Your task to perform on an android device: turn on the 12-hour format for clock Image 0: 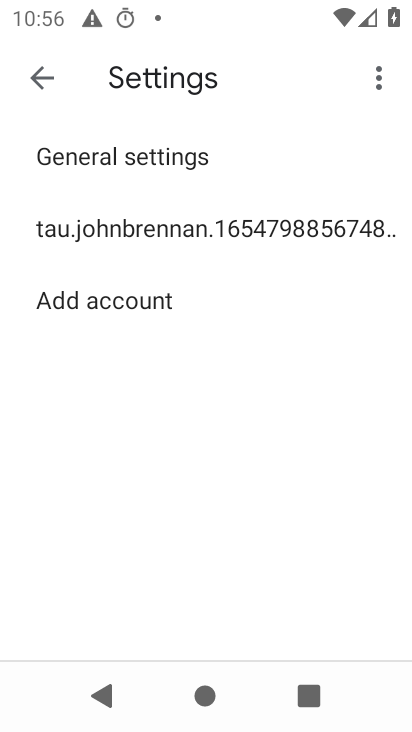
Step 0: press back button
Your task to perform on an android device: turn on the 12-hour format for clock Image 1: 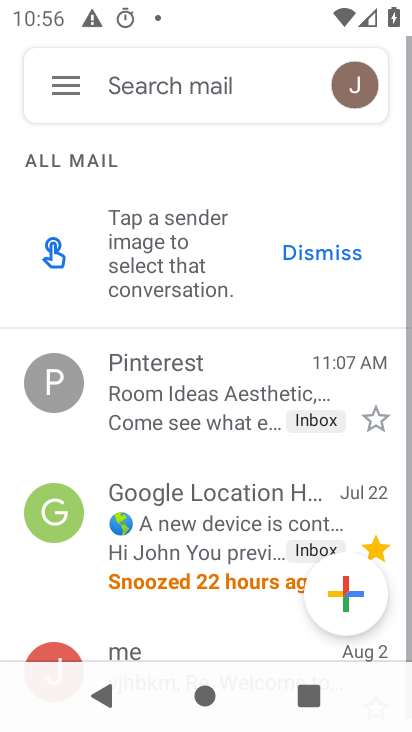
Step 1: press back button
Your task to perform on an android device: turn on the 12-hour format for clock Image 2: 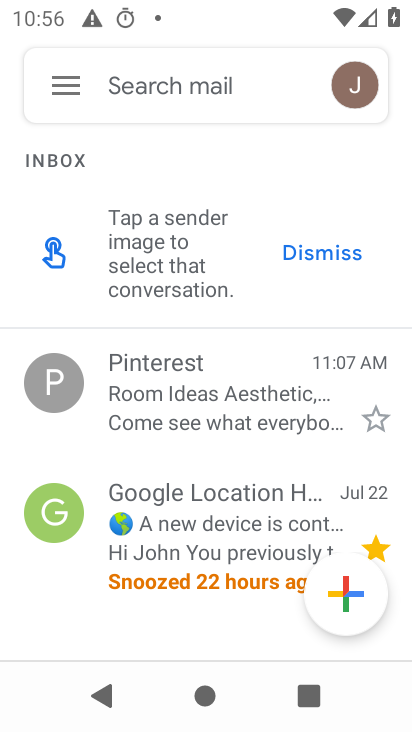
Step 2: press back button
Your task to perform on an android device: turn on the 12-hour format for clock Image 3: 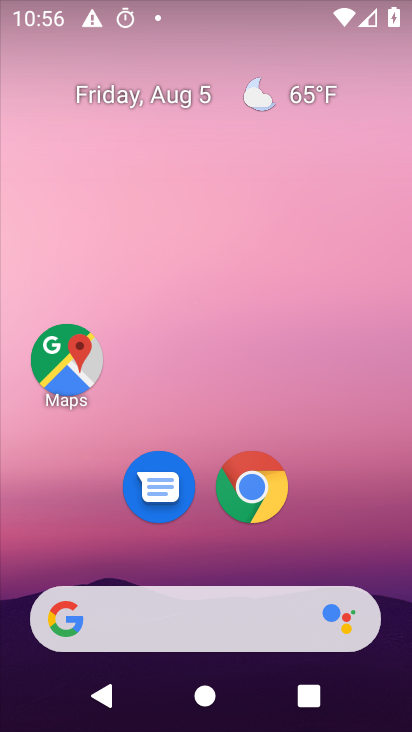
Step 3: drag from (192, 552) to (268, 14)
Your task to perform on an android device: turn on the 12-hour format for clock Image 4: 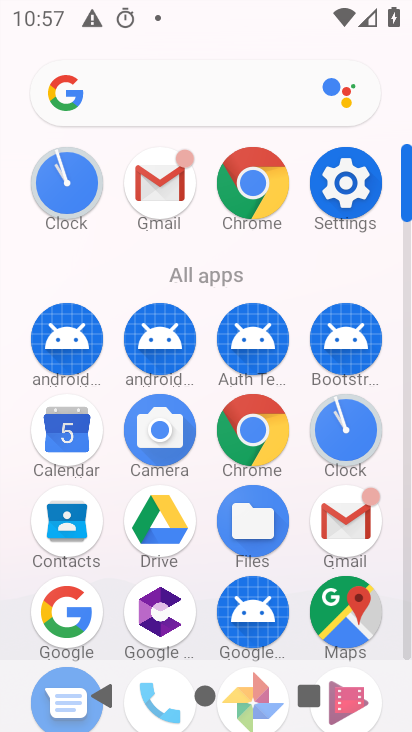
Step 4: click (346, 420)
Your task to perform on an android device: turn on the 12-hour format for clock Image 5: 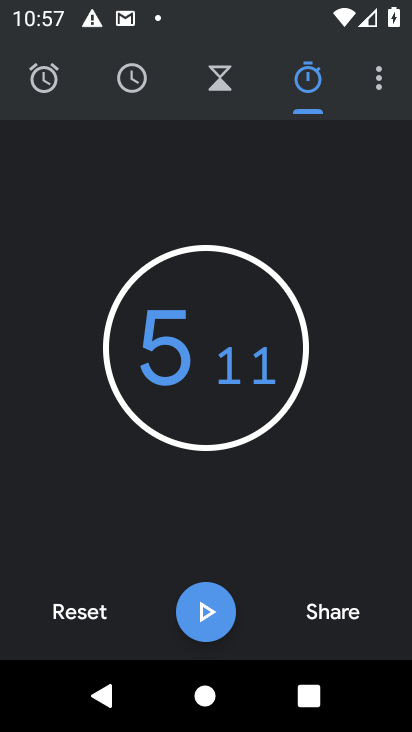
Step 5: click (377, 80)
Your task to perform on an android device: turn on the 12-hour format for clock Image 6: 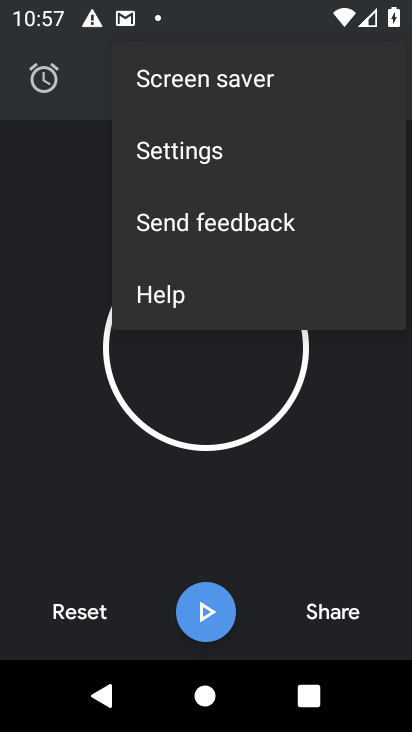
Step 6: click (189, 166)
Your task to perform on an android device: turn on the 12-hour format for clock Image 7: 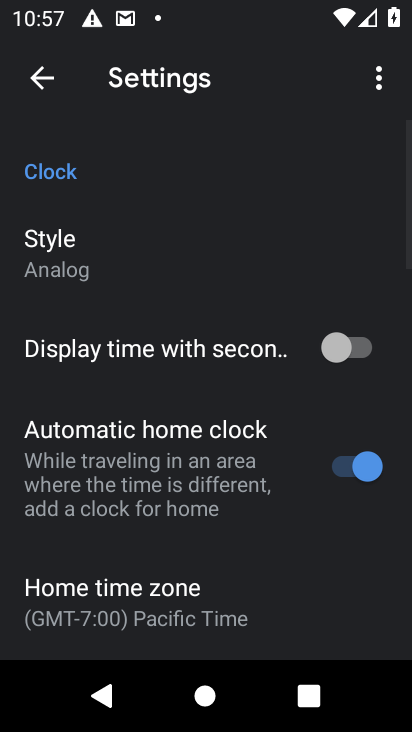
Step 7: drag from (172, 566) to (276, 19)
Your task to perform on an android device: turn on the 12-hour format for clock Image 8: 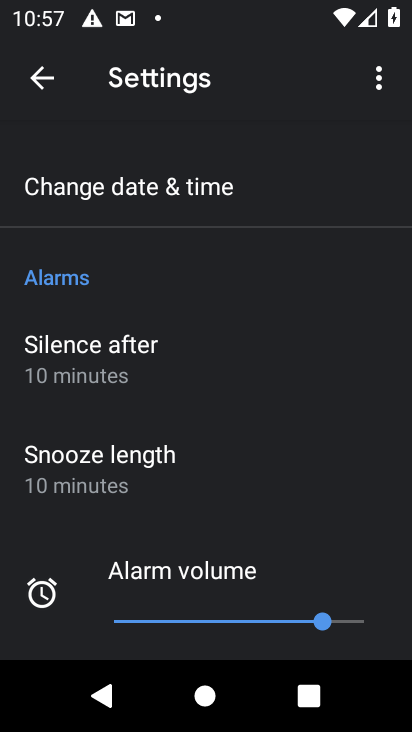
Step 8: click (144, 182)
Your task to perform on an android device: turn on the 12-hour format for clock Image 9: 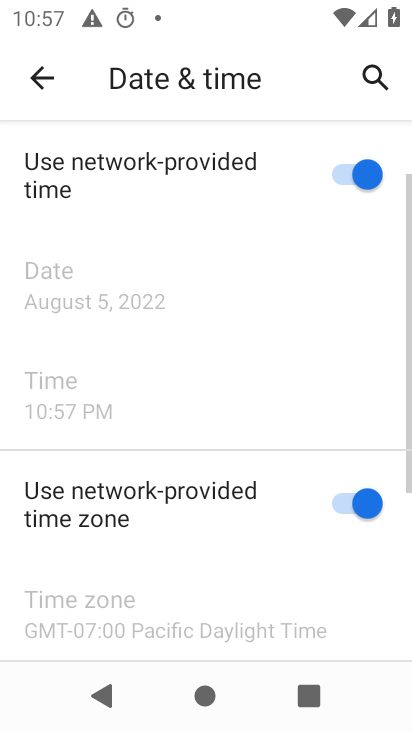
Step 9: task complete